Your task to perform on an android device: change notifications settings Image 0: 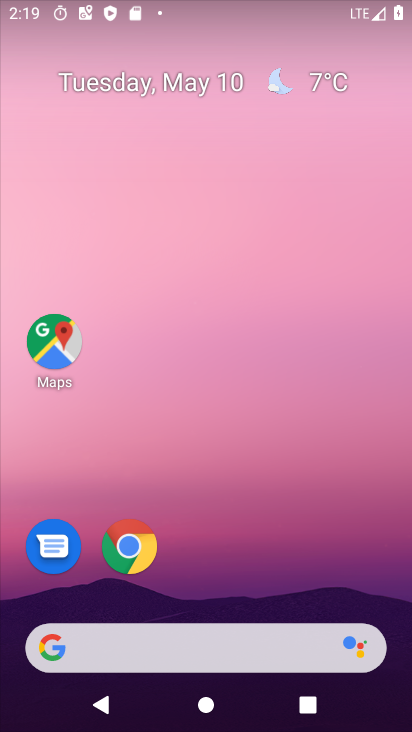
Step 0: drag from (281, 514) to (285, 168)
Your task to perform on an android device: change notifications settings Image 1: 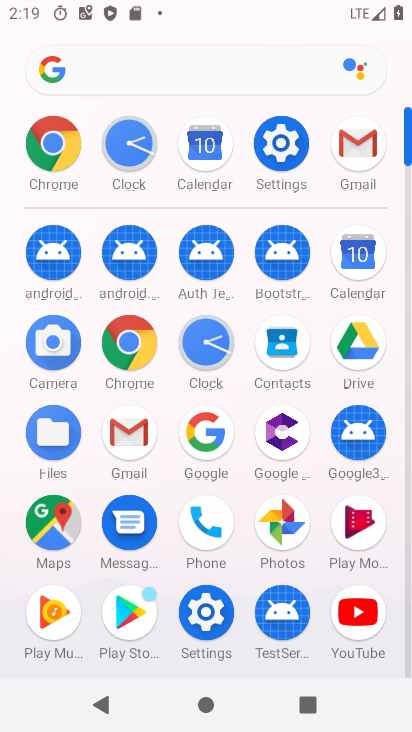
Step 1: click (276, 157)
Your task to perform on an android device: change notifications settings Image 2: 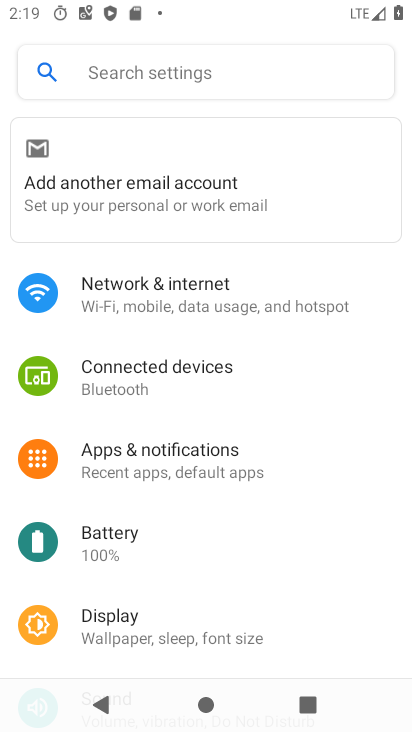
Step 2: click (151, 446)
Your task to perform on an android device: change notifications settings Image 3: 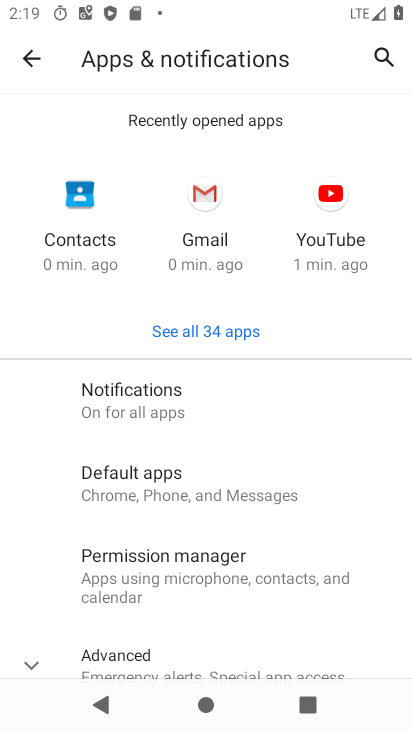
Step 3: click (113, 403)
Your task to perform on an android device: change notifications settings Image 4: 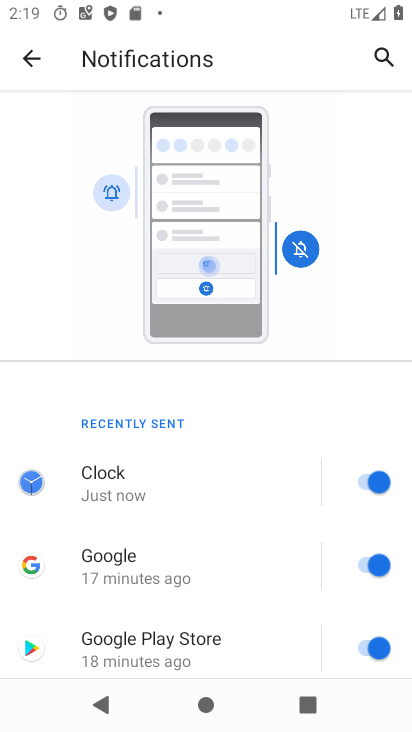
Step 4: drag from (201, 620) to (201, 274)
Your task to perform on an android device: change notifications settings Image 5: 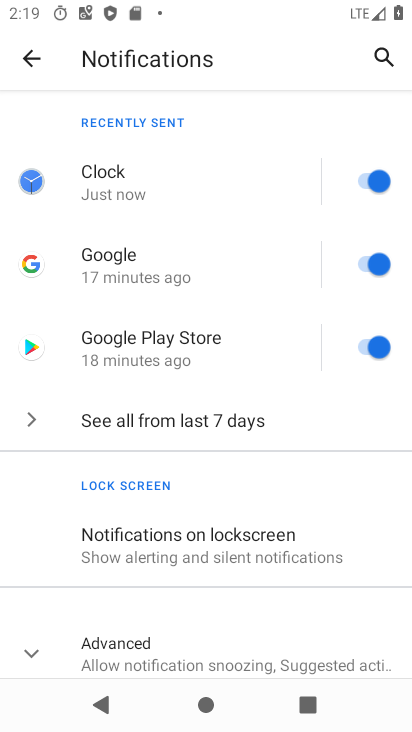
Step 5: click (377, 199)
Your task to perform on an android device: change notifications settings Image 6: 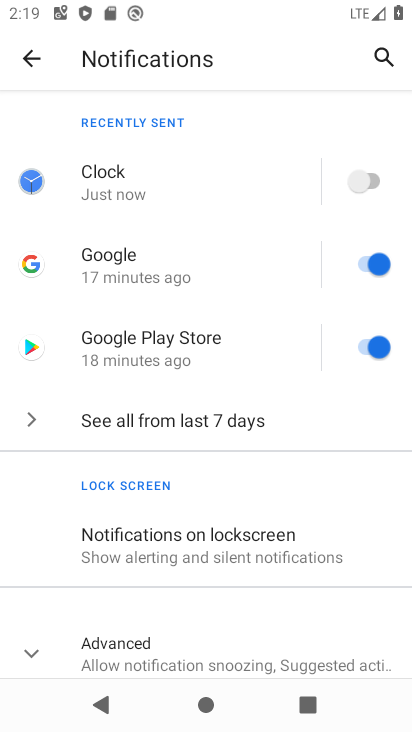
Step 6: task complete